Your task to perform on an android device: Add amazon basics triple a to the cart on walmart.com, then select checkout. Image 0: 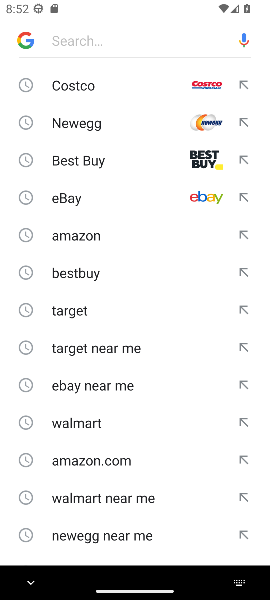
Step 0: type "walmart.com"
Your task to perform on an android device: Add amazon basics triple a to the cart on walmart.com, then select checkout. Image 1: 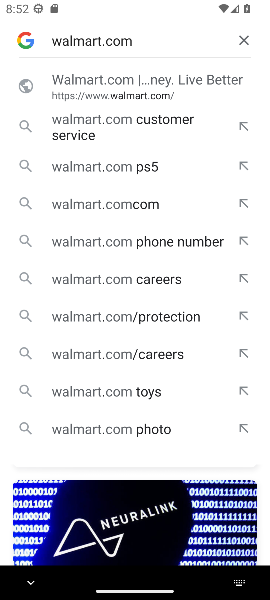
Step 1: click (116, 89)
Your task to perform on an android device: Add amazon basics triple a to the cart on walmart.com, then select checkout. Image 2: 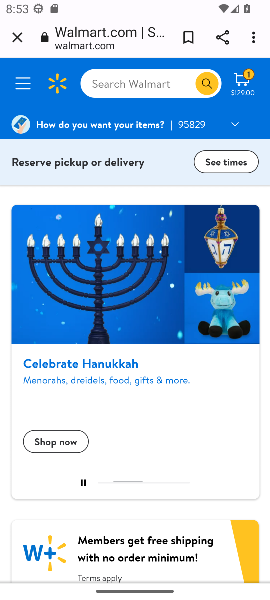
Step 2: click (120, 90)
Your task to perform on an android device: Add amazon basics triple a to the cart on walmart.com, then select checkout. Image 3: 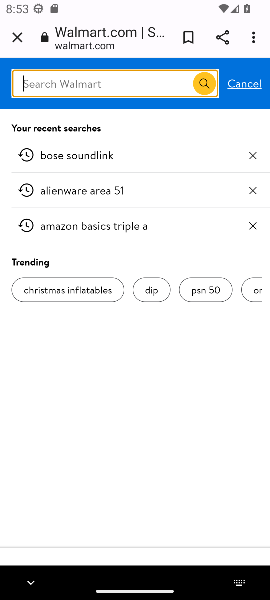
Step 3: type "amazon basics triple a"
Your task to perform on an android device: Add amazon basics triple a to the cart on walmart.com, then select checkout. Image 4: 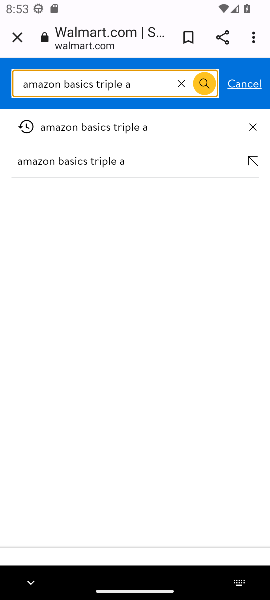
Step 4: click (82, 129)
Your task to perform on an android device: Add amazon basics triple a to the cart on walmart.com, then select checkout. Image 5: 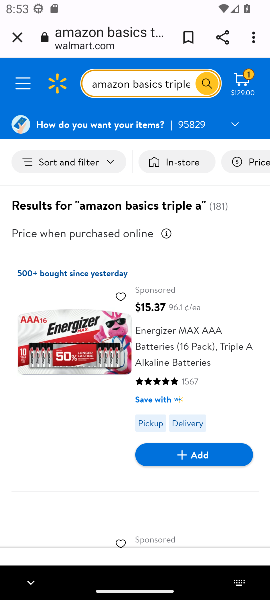
Step 5: task complete